Your task to perform on an android device: Open the Play Movies app and select the watchlist tab. Image 0: 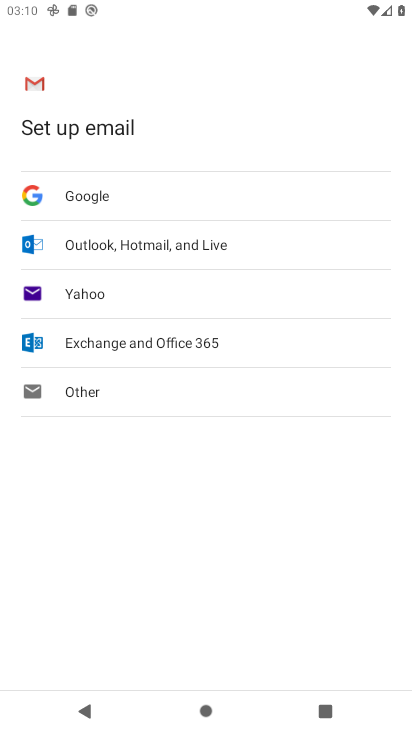
Step 0: press home button
Your task to perform on an android device: Open the Play Movies app and select the watchlist tab. Image 1: 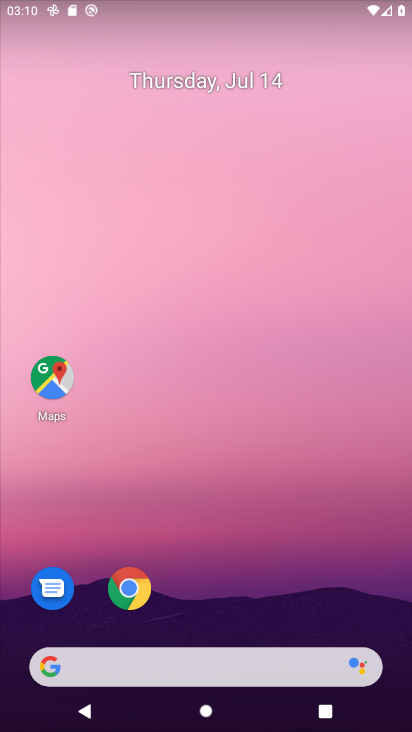
Step 1: drag from (253, 613) to (128, 185)
Your task to perform on an android device: Open the Play Movies app and select the watchlist tab. Image 2: 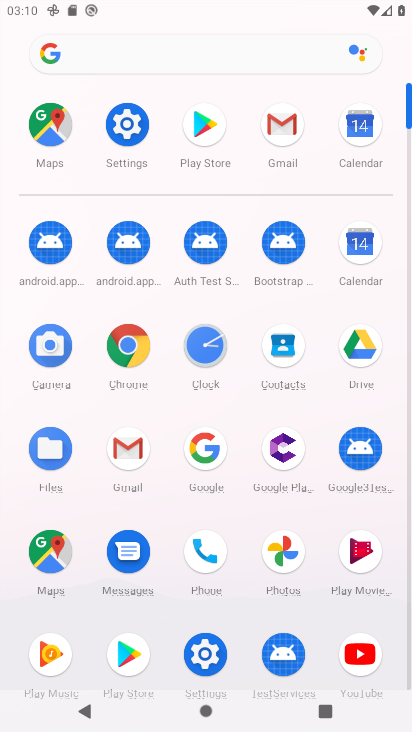
Step 2: click (362, 551)
Your task to perform on an android device: Open the Play Movies app and select the watchlist tab. Image 3: 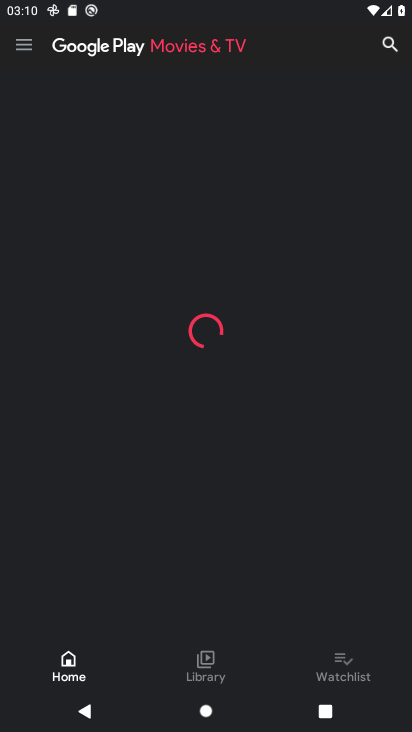
Step 3: click (351, 670)
Your task to perform on an android device: Open the Play Movies app and select the watchlist tab. Image 4: 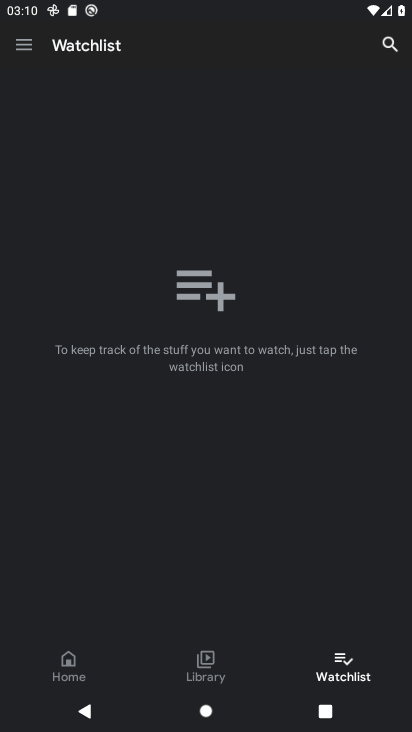
Step 4: task complete